Your task to perform on an android device: Open Yahoo.com Image 0: 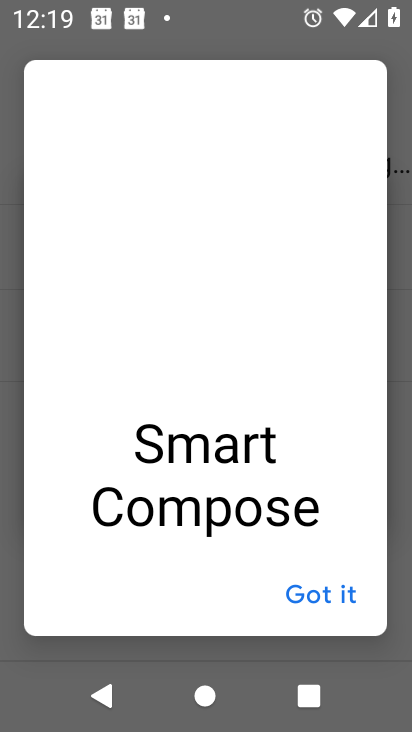
Step 0: press home button
Your task to perform on an android device: Open Yahoo.com Image 1: 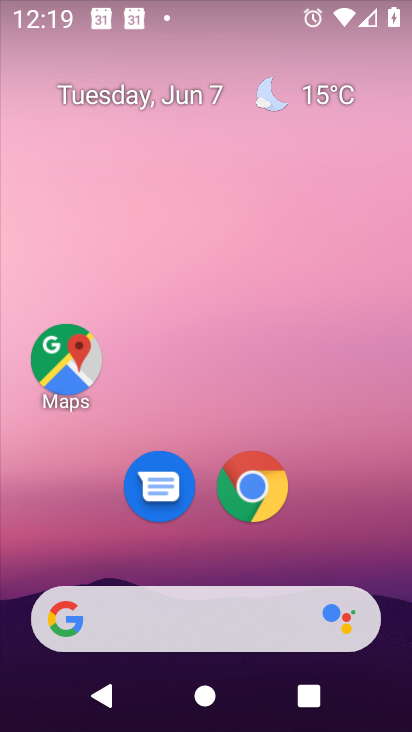
Step 1: click (264, 482)
Your task to perform on an android device: Open Yahoo.com Image 2: 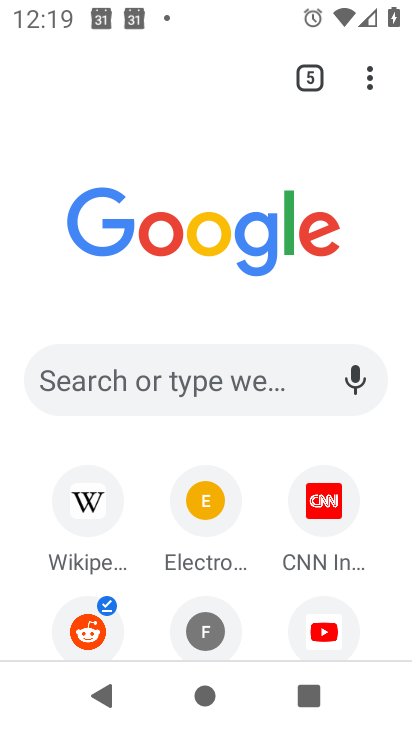
Step 2: drag from (262, 604) to (274, 260)
Your task to perform on an android device: Open Yahoo.com Image 3: 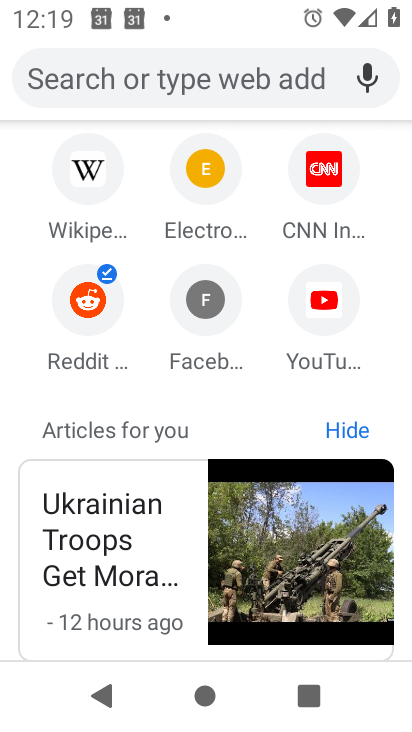
Step 3: click (189, 75)
Your task to perform on an android device: Open Yahoo.com Image 4: 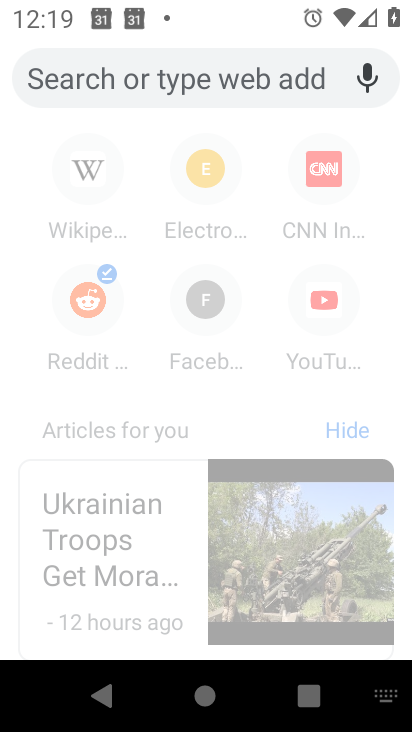
Step 4: type "yahoo.com"
Your task to perform on an android device: Open Yahoo.com Image 5: 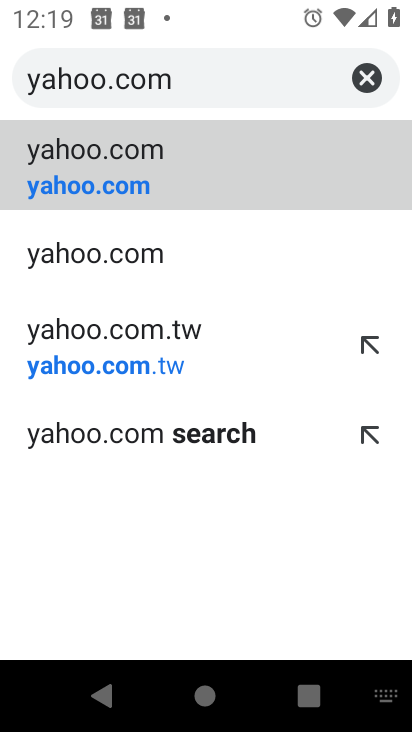
Step 5: click (261, 166)
Your task to perform on an android device: Open Yahoo.com Image 6: 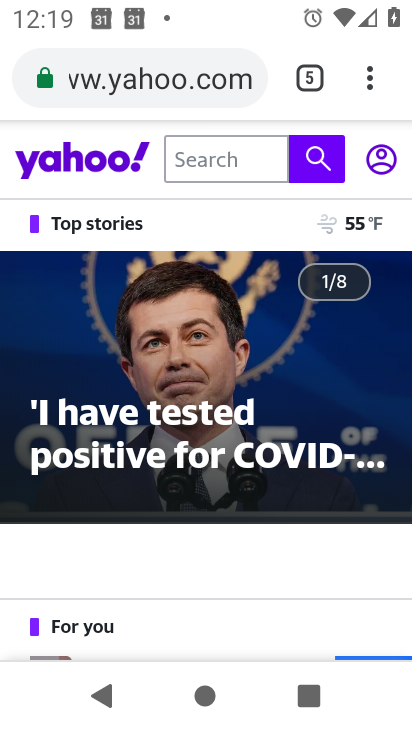
Step 6: task complete